Your task to perform on an android device: Open the phone app and click the voicemail tab. Image 0: 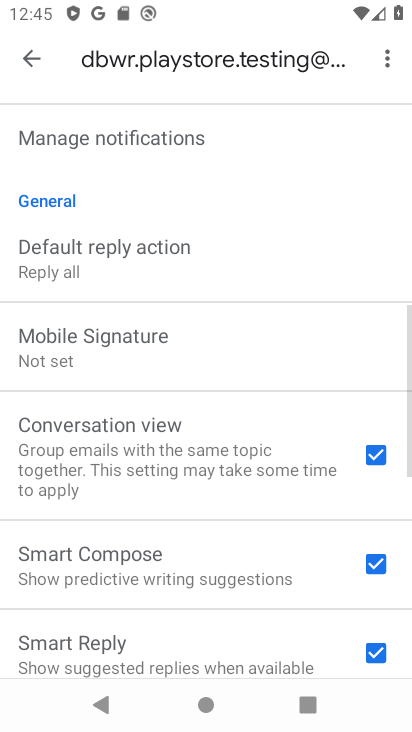
Step 0: click (34, 58)
Your task to perform on an android device: Open the phone app and click the voicemail tab. Image 1: 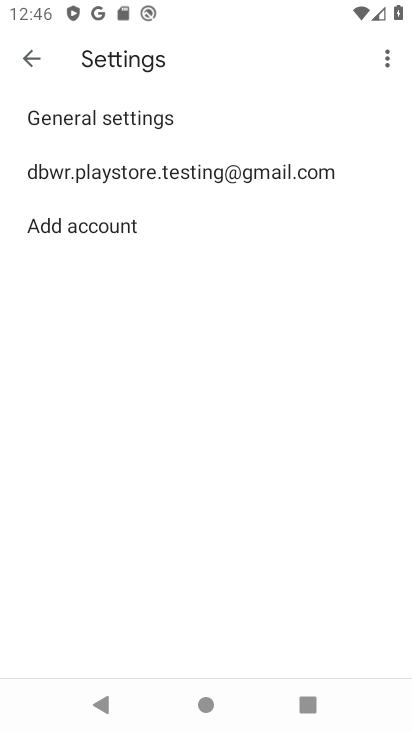
Step 1: click (32, 50)
Your task to perform on an android device: Open the phone app and click the voicemail tab. Image 2: 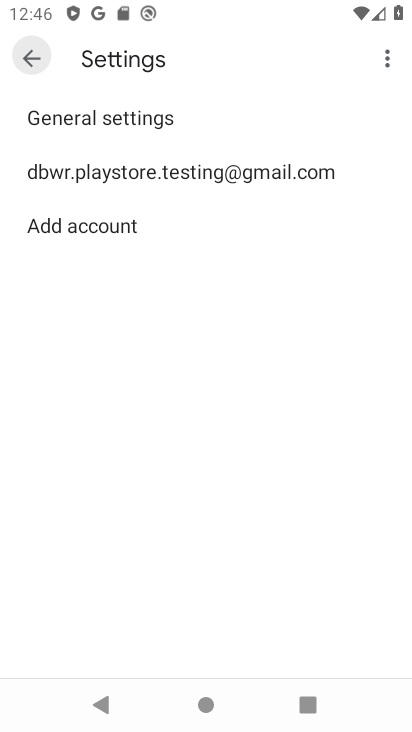
Step 2: click (32, 50)
Your task to perform on an android device: Open the phone app and click the voicemail tab. Image 3: 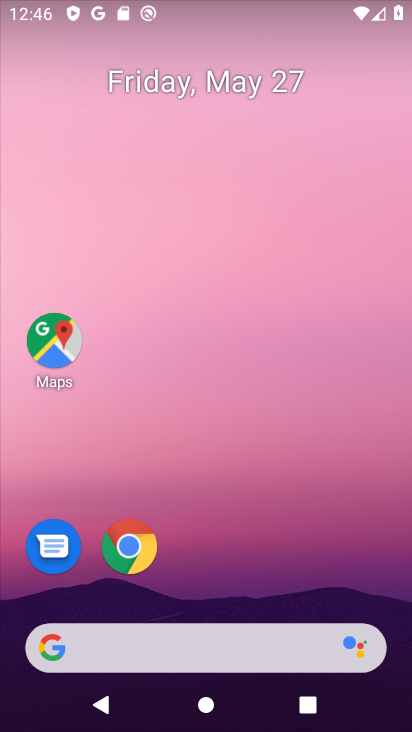
Step 3: drag from (284, 684) to (220, 212)
Your task to perform on an android device: Open the phone app and click the voicemail tab. Image 4: 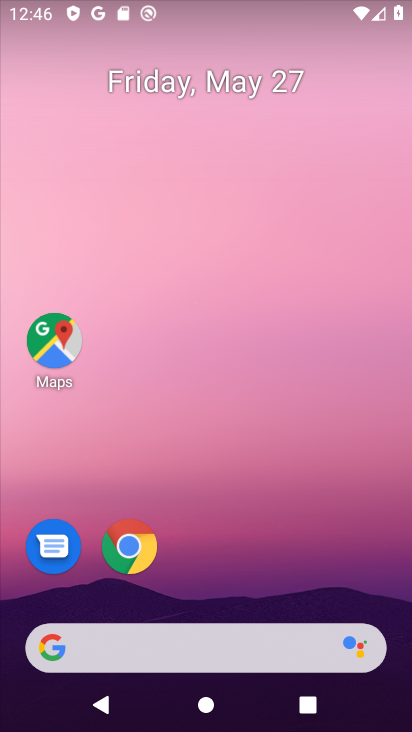
Step 4: drag from (252, 672) to (165, 188)
Your task to perform on an android device: Open the phone app and click the voicemail tab. Image 5: 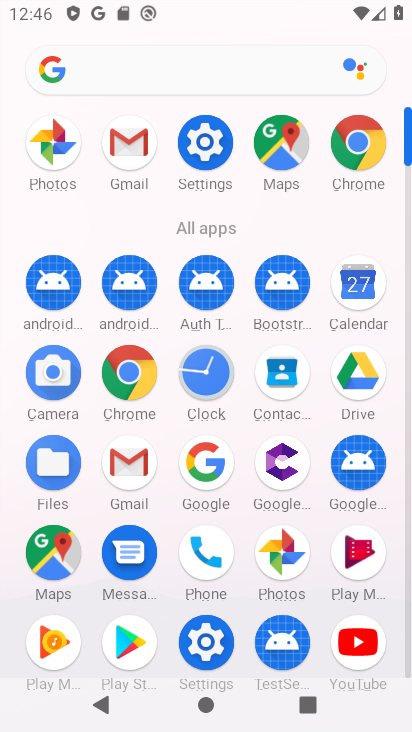
Step 5: click (198, 552)
Your task to perform on an android device: Open the phone app and click the voicemail tab. Image 6: 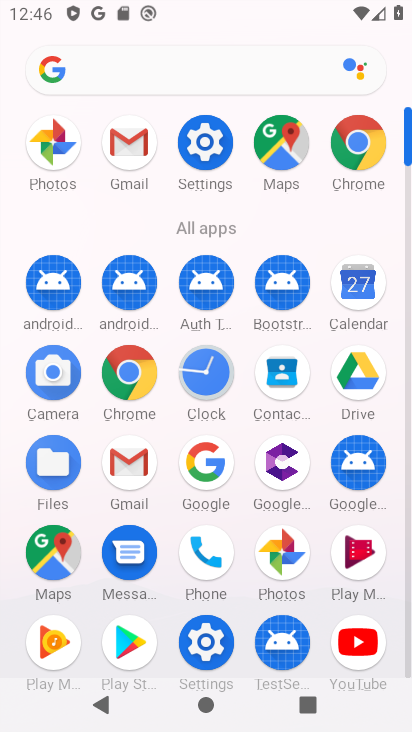
Step 6: click (191, 537)
Your task to perform on an android device: Open the phone app and click the voicemail tab. Image 7: 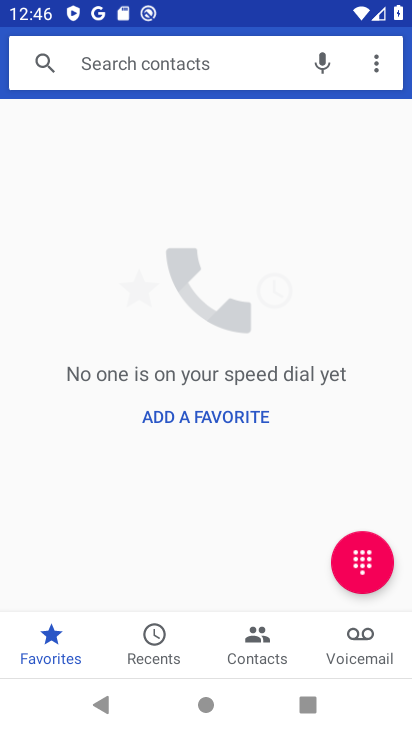
Step 7: click (372, 662)
Your task to perform on an android device: Open the phone app and click the voicemail tab. Image 8: 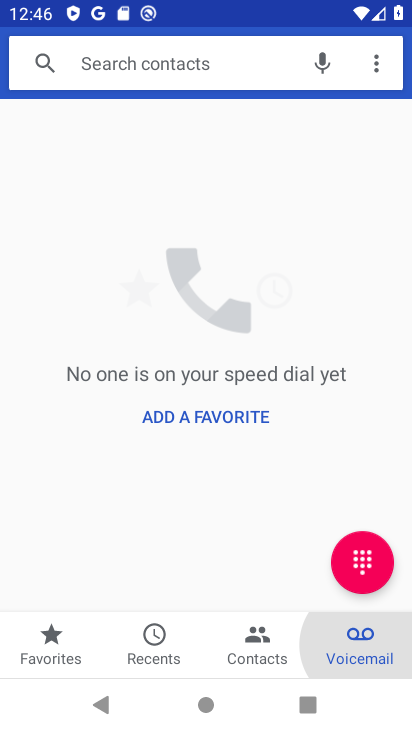
Step 8: click (367, 643)
Your task to perform on an android device: Open the phone app and click the voicemail tab. Image 9: 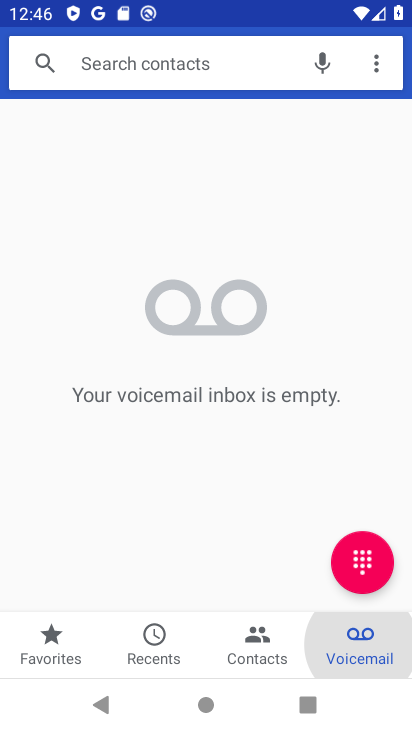
Step 9: click (367, 643)
Your task to perform on an android device: Open the phone app and click the voicemail tab. Image 10: 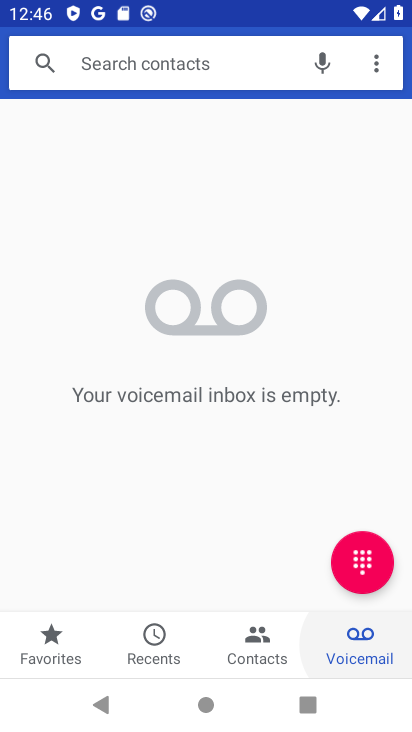
Step 10: click (367, 643)
Your task to perform on an android device: Open the phone app and click the voicemail tab. Image 11: 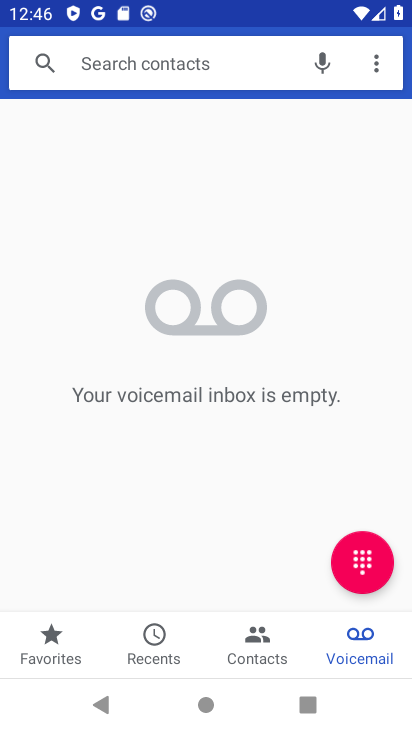
Step 11: task complete